Your task to perform on an android device: When is my next appointment? Image 0: 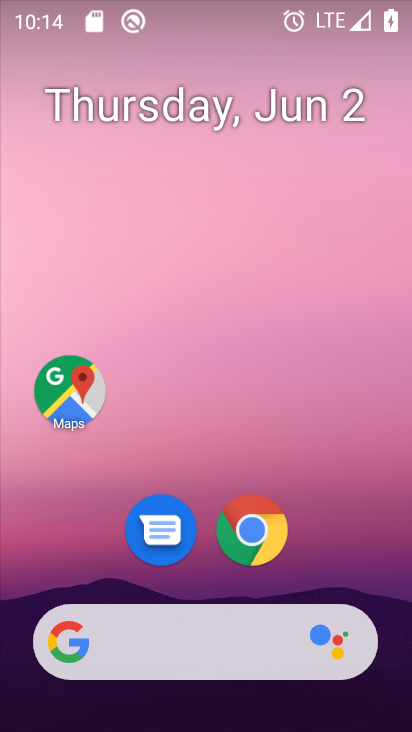
Step 0: drag from (204, 601) to (241, 179)
Your task to perform on an android device: When is my next appointment? Image 1: 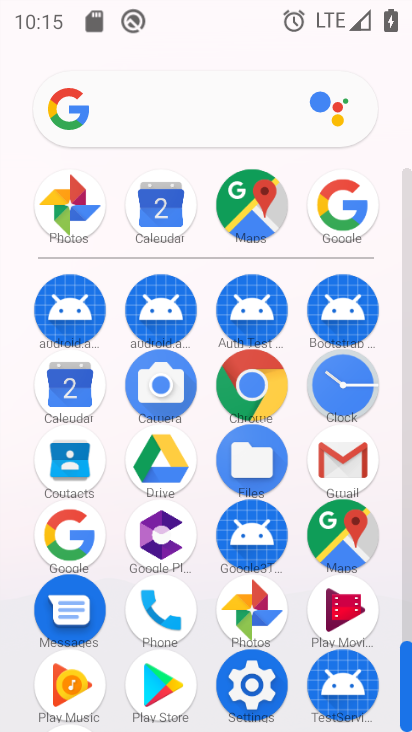
Step 1: click (68, 397)
Your task to perform on an android device: When is my next appointment? Image 2: 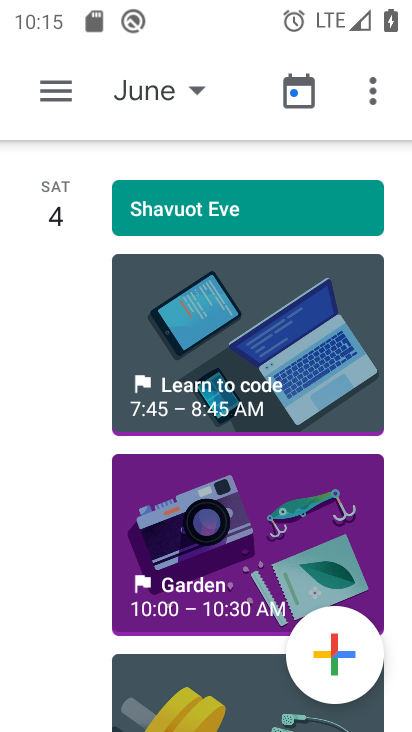
Step 2: click (168, 95)
Your task to perform on an android device: When is my next appointment? Image 3: 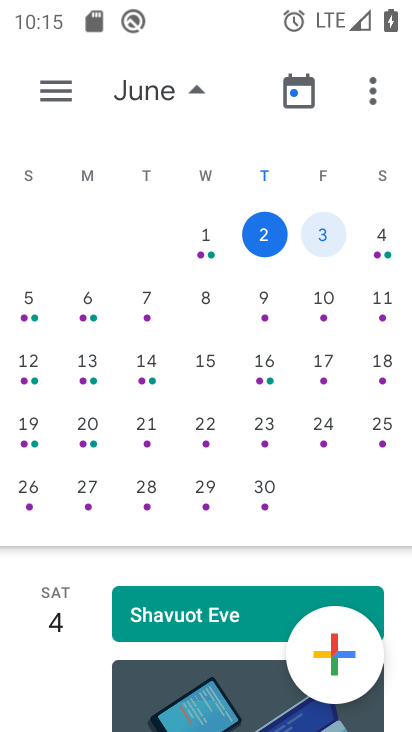
Step 3: drag from (373, 456) to (1, 432)
Your task to perform on an android device: When is my next appointment? Image 4: 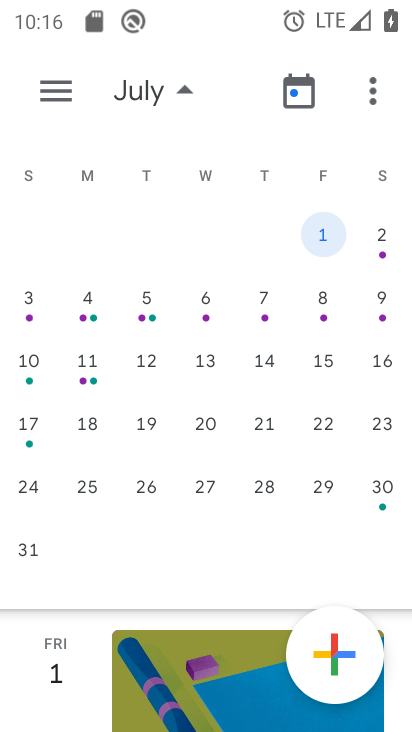
Step 4: drag from (98, 694) to (86, 272)
Your task to perform on an android device: When is my next appointment? Image 5: 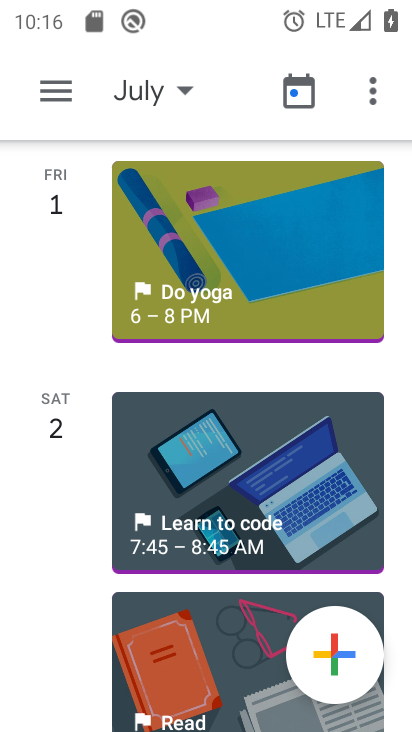
Step 5: drag from (98, 651) to (108, 353)
Your task to perform on an android device: When is my next appointment? Image 6: 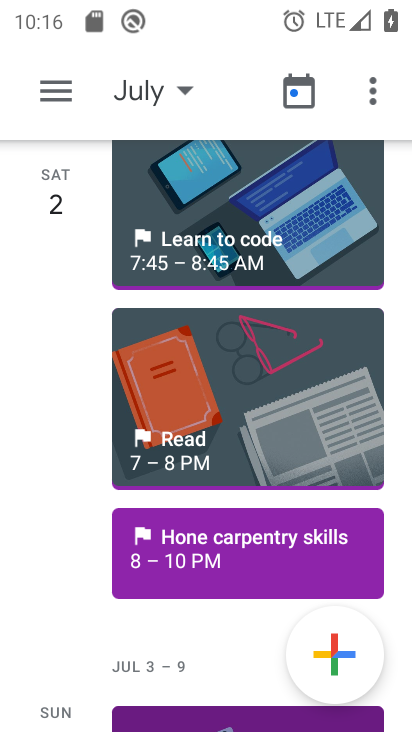
Step 6: click (150, 95)
Your task to perform on an android device: When is my next appointment? Image 7: 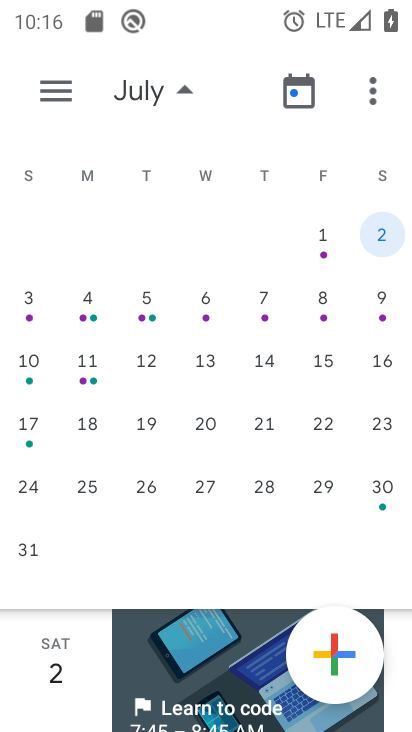
Step 7: task complete